Your task to perform on an android device: Open settings on Google Maps Image 0: 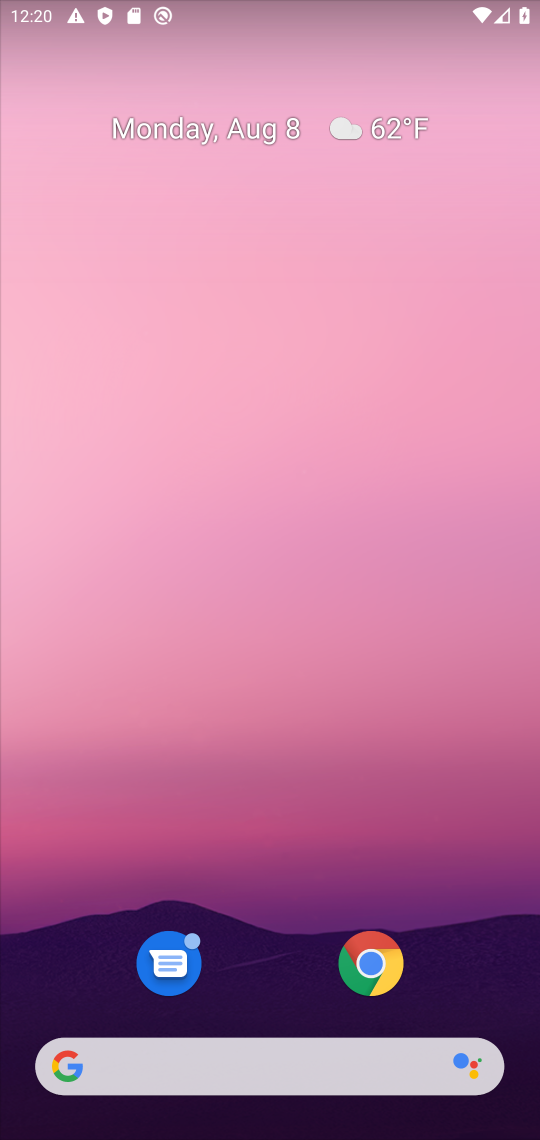
Step 0: drag from (481, 993) to (302, 121)
Your task to perform on an android device: Open settings on Google Maps Image 1: 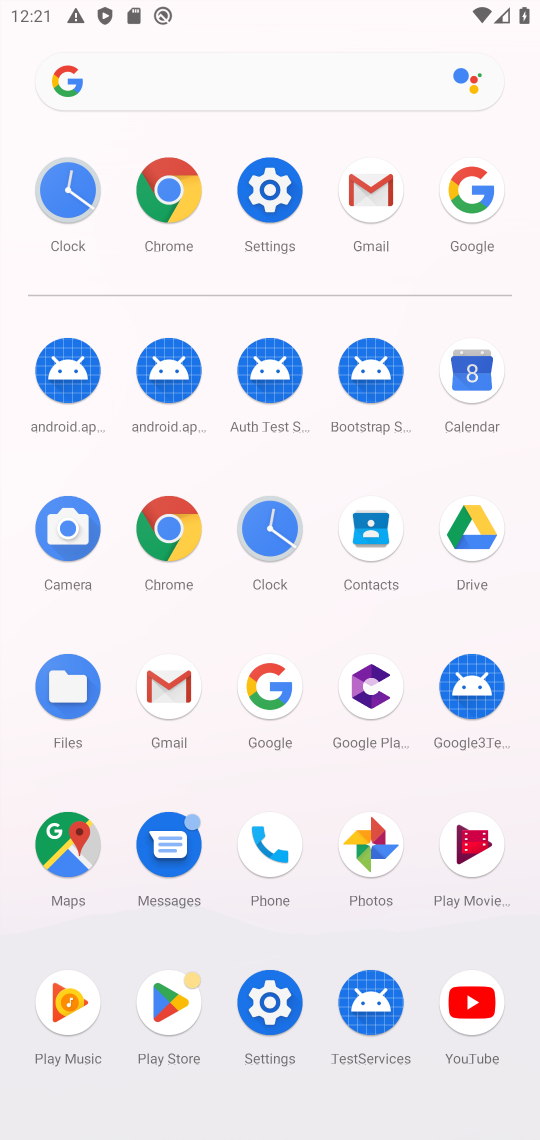
Step 1: click (78, 845)
Your task to perform on an android device: Open settings on Google Maps Image 2: 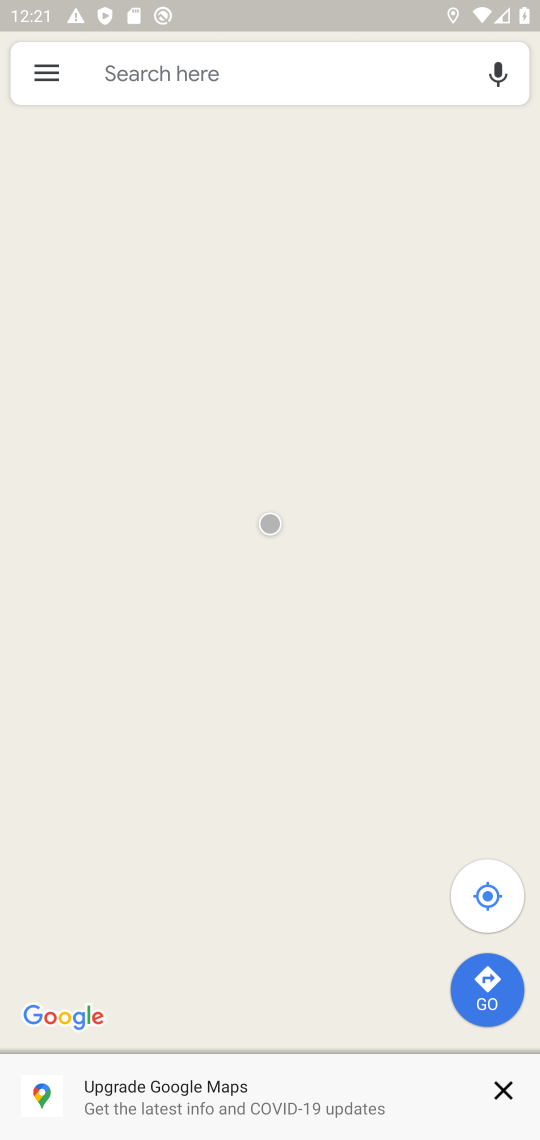
Step 2: click (52, 57)
Your task to perform on an android device: Open settings on Google Maps Image 3: 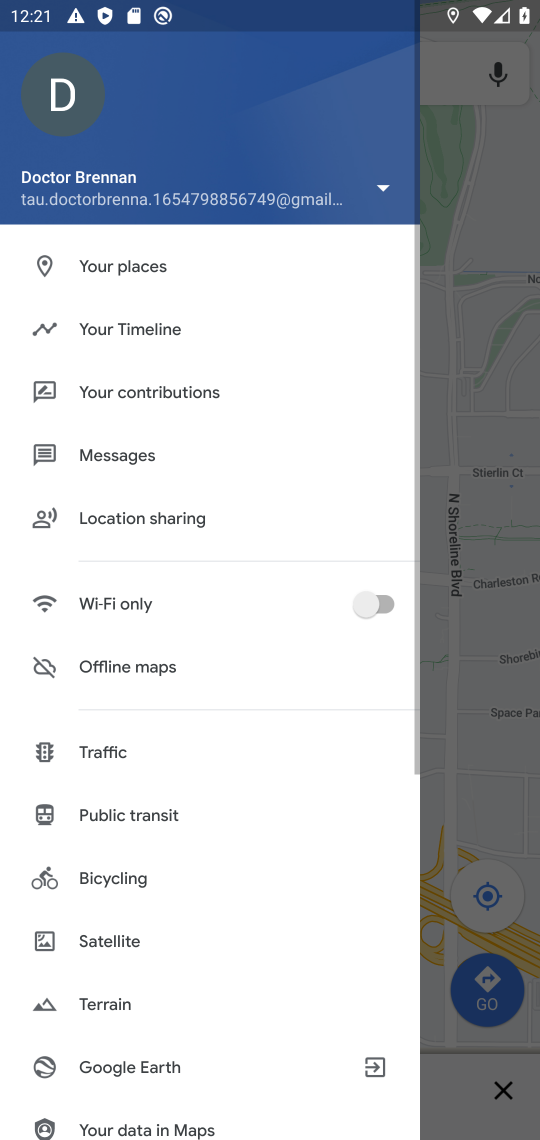
Step 3: drag from (195, 1087) to (228, 169)
Your task to perform on an android device: Open settings on Google Maps Image 4: 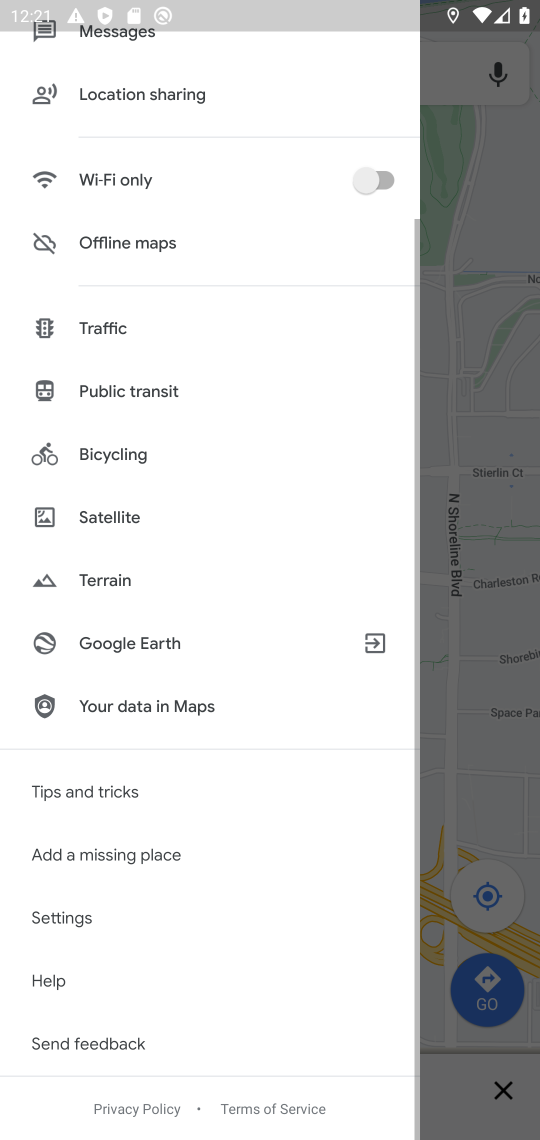
Step 4: click (97, 916)
Your task to perform on an android device: Open settings on Google Maps Image 5: 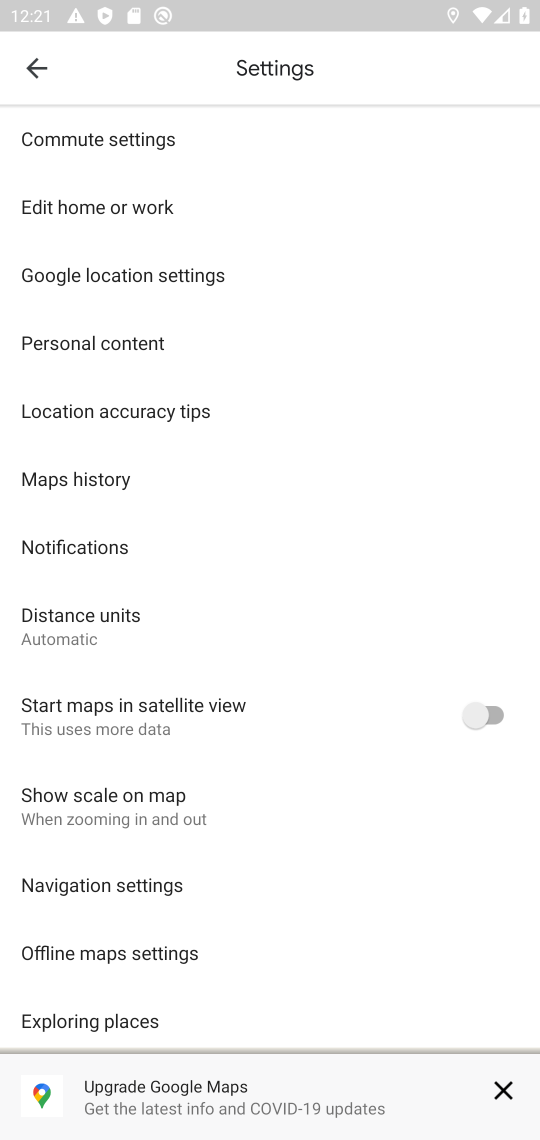
Step 5: task complete